Your task to perform on an android device: show emergency info Image 0: 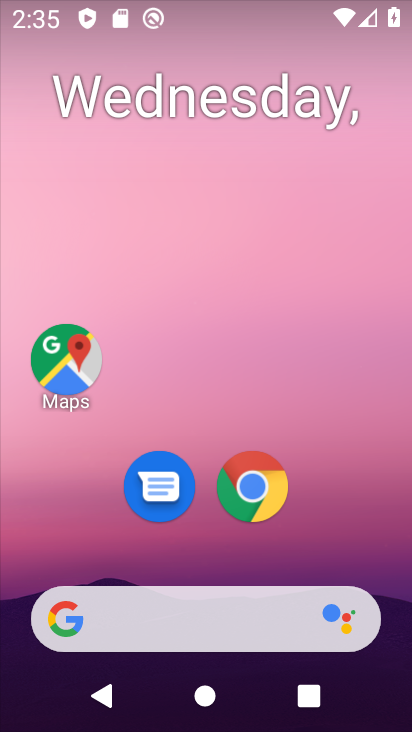
Step 0: drag from (219, 584) to (119, 3)
Your task to perform on an android device: show emergency info Image 1: 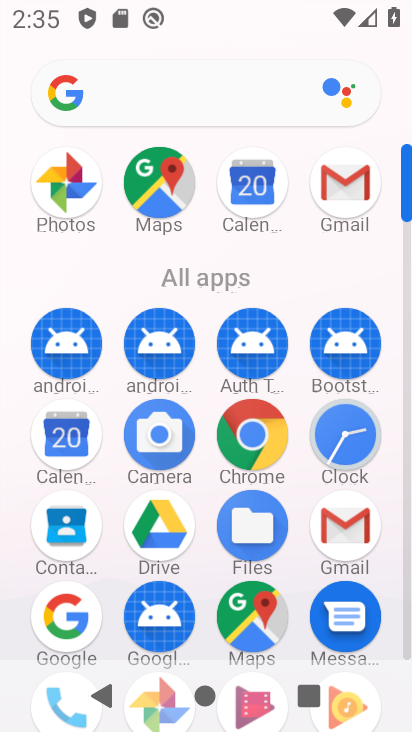
Step 1: drag from (219, 573) to (188, 31)
Your task to perform on an android device: show emergency info Image 2: 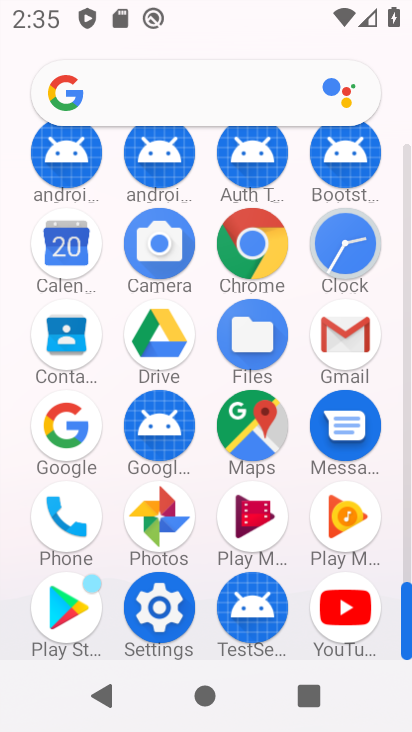
Step 2: click (152, 612)
Your task to perform on an android device: show emergency info Image 3: 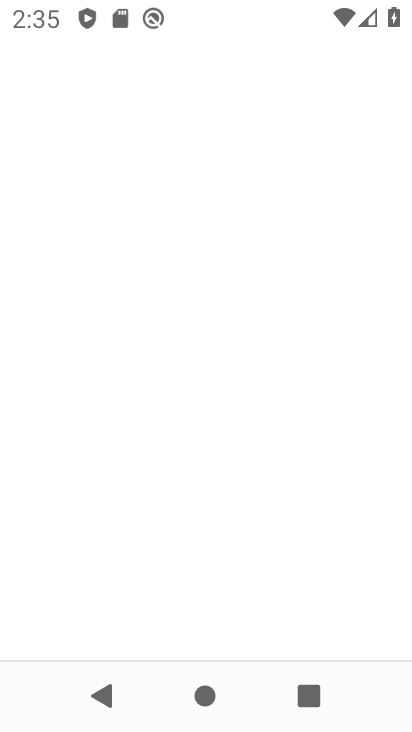
Step 3: drag from (203, 601) to (125, 1)
Your task to perform on an android device: show emergency info Image 4: 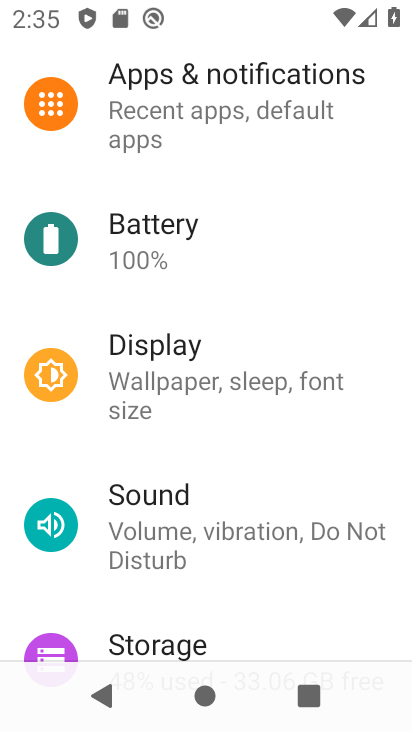
Step 4: drag from (163, 607) to (151, 126)
Your task to perform on an android device: show emergency info Image 5: 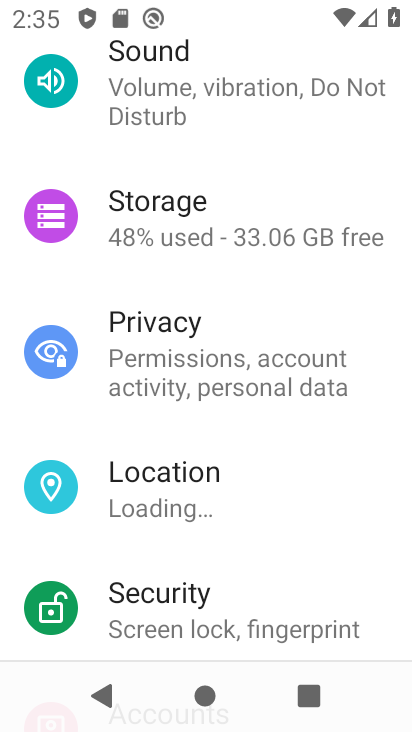
Step 5: drag from (185, 597) to (137, 167)
Your task to perform on an android device: show emergency info Image 6: 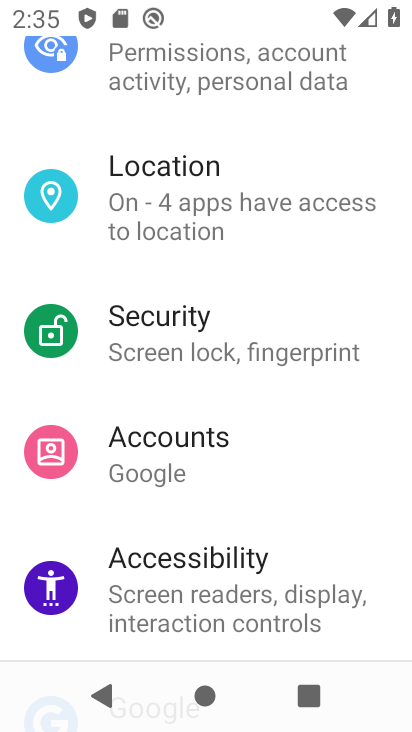
Step 6: drag from (144, 536) to (83, 65)
Your task to perform on an android device: show emergency info Image 7: 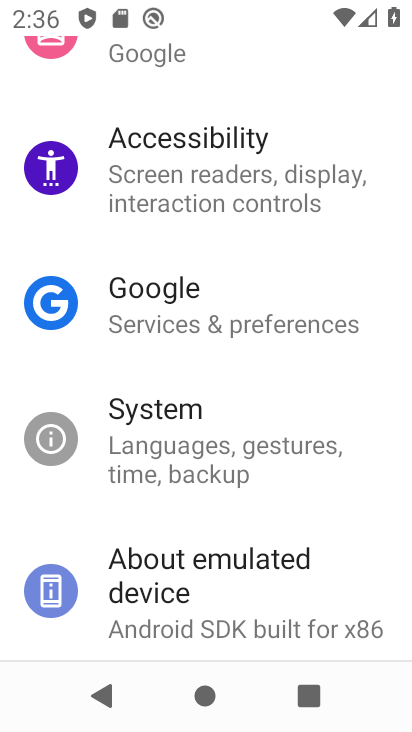
Step 7: click (204, 581)
Your task to perform on an android device: show emergency info Image 8: 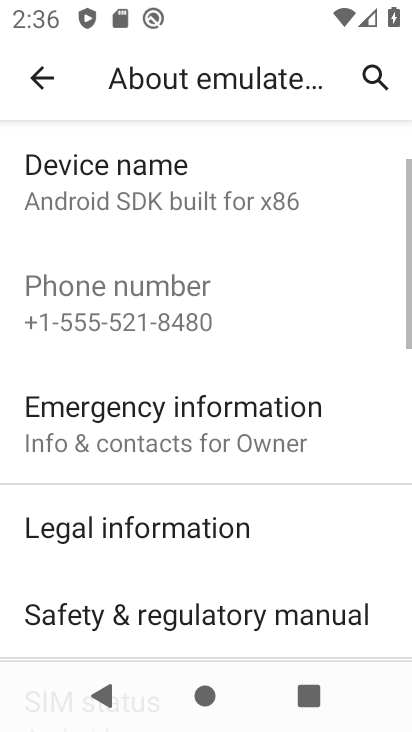
Step 8: click (196, 435)
Your task to perform on an android device: show emergency info Image 9: 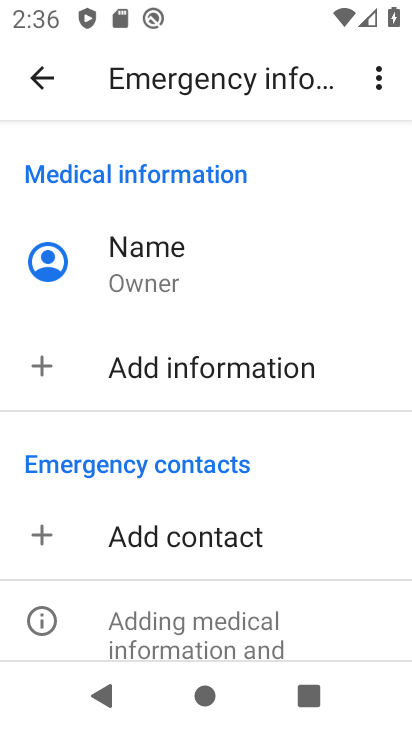
Step 9: task complete